Your task to perform on an android device: Open the calendar and show me this week's events? Image 0: 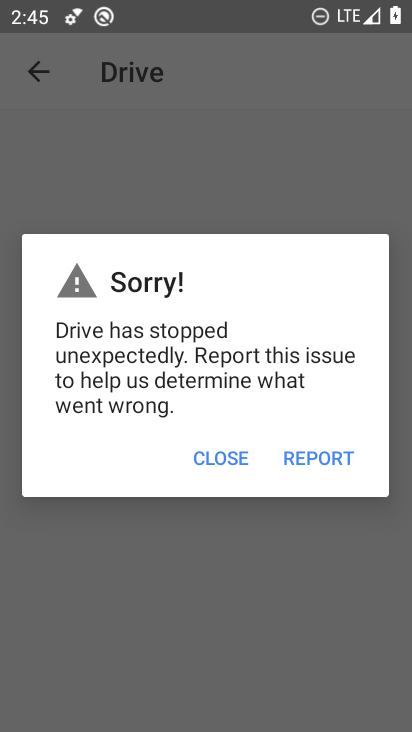
Step 0: click (217, 462)
Your task to perform on an android device: Open the calendar and show me this week's events? Image 1: 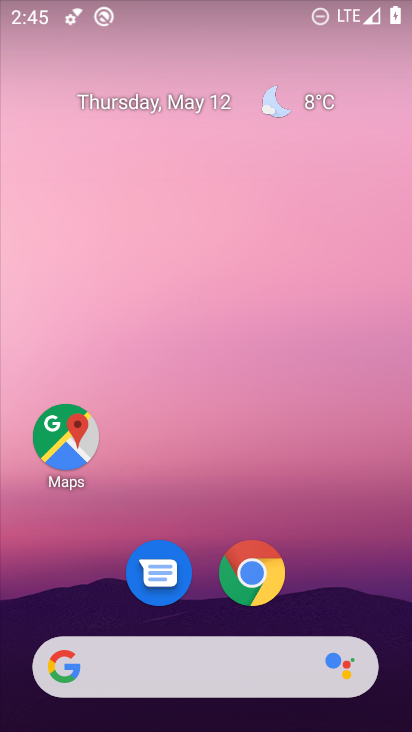
Step 1: drag from (366, 516) to (206, 98)
Your task to perform on an android device: Open the calendar and show me this week's events? Image 2: 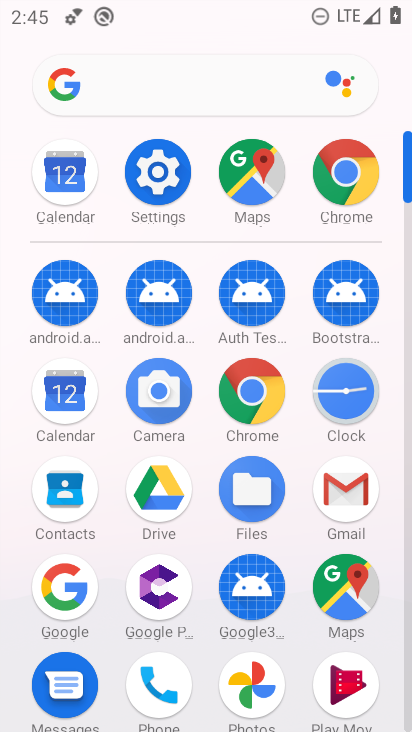
Step 2: click (57, 389)
Your task to perform on an android device: Open the calendar and show me this week's events? Image 3: 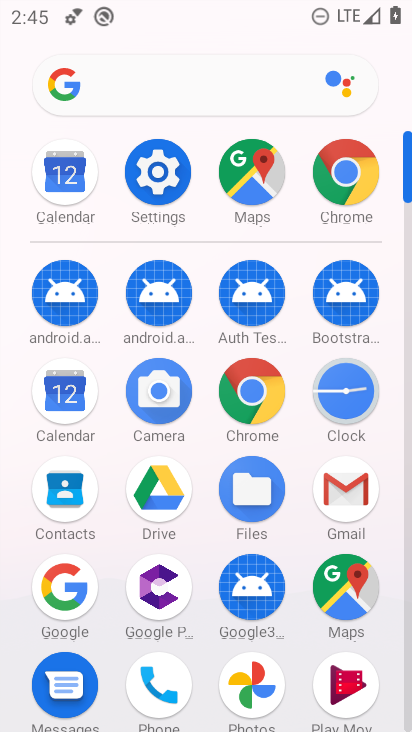
Step 3: click (57, 389)
Your task to perform on an android device: Open the calendar and show me this week's events? Image 4: 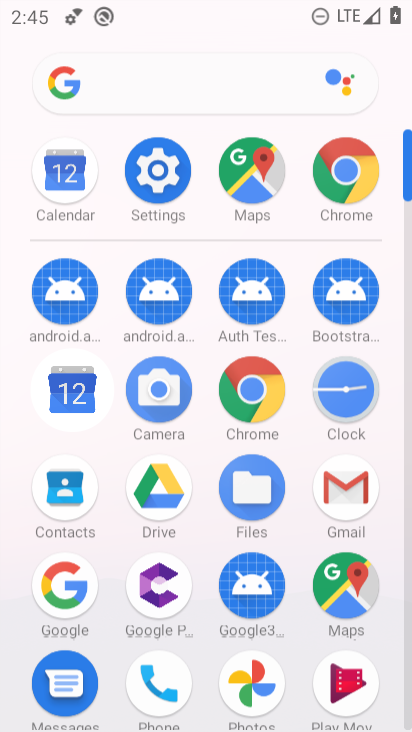
Step 4: click (55, 391)
Your task to perform on an android device: Open the calendar and show me this week's events? Image 5: 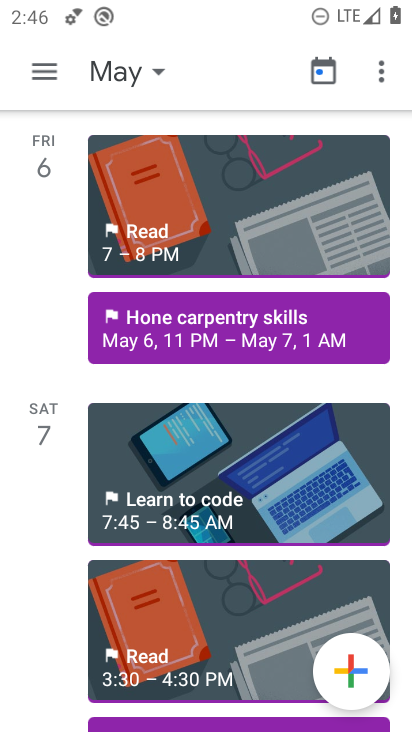
Step 5: task complete